Your task to perform on an android device: Search for vegetarian restaurants on Maps Image 0: 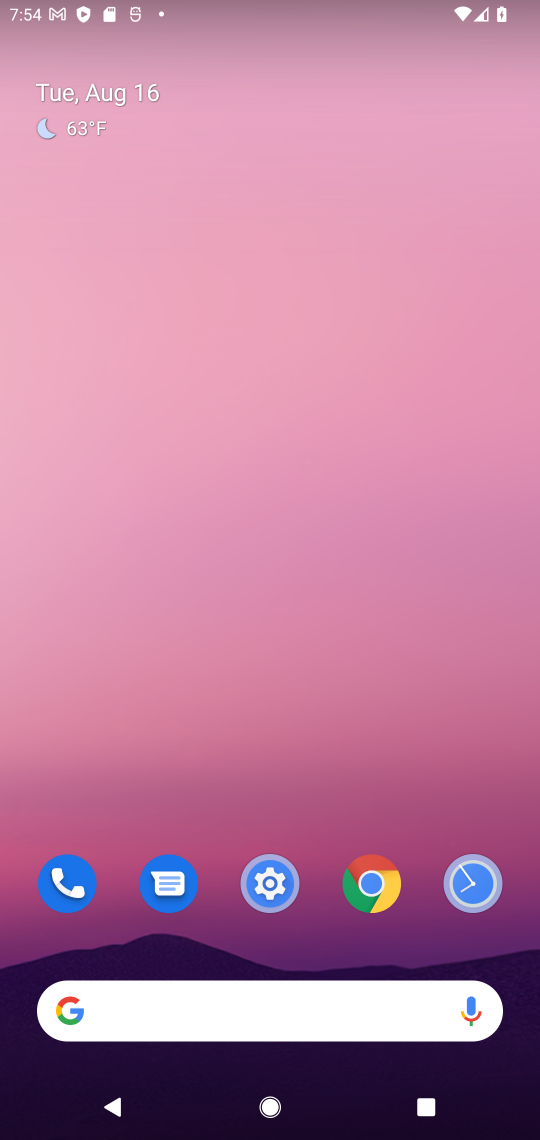
Step 0: drag from (322, 836) to (284, 78)
Your task to perform on an android device: Search for vegetarian restaurants on Maps Image 1: 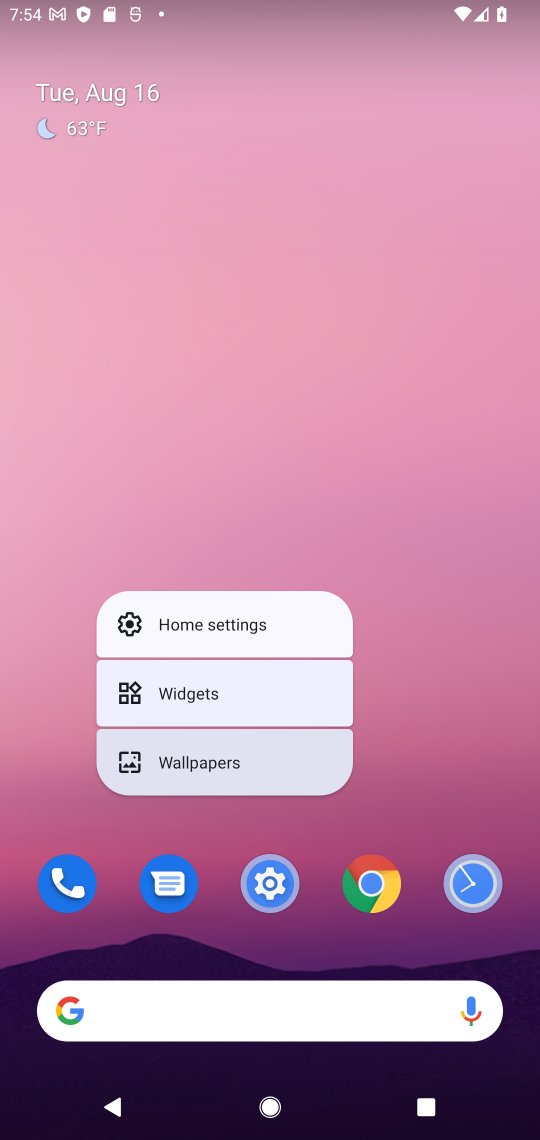
Step 1: click (376, 550)
Your task to perform on an android device: Search for vegetarian restaurants on Maps Image 2: 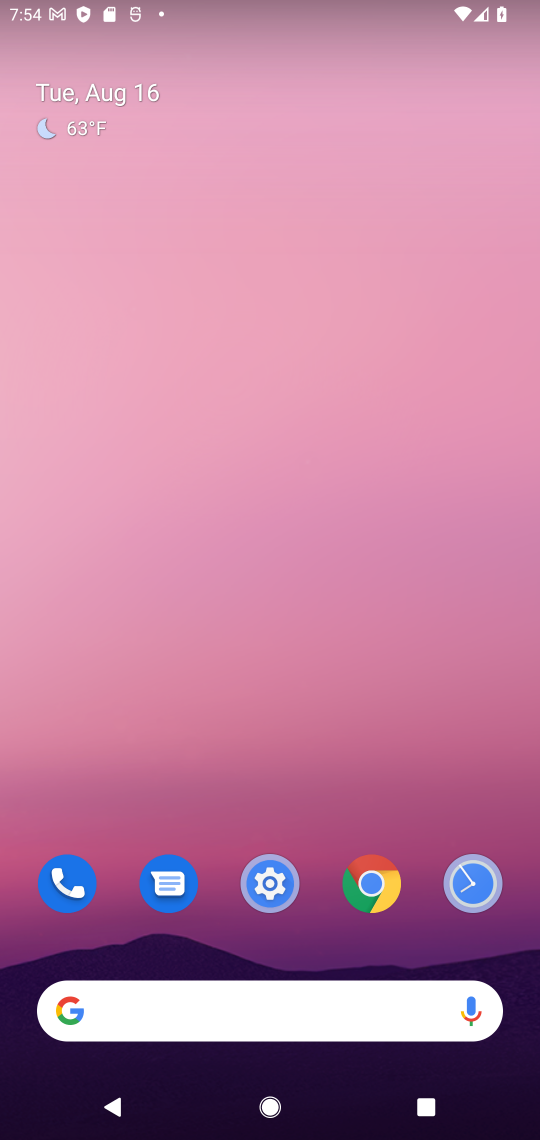
Step 2: drag from (494, 764) to (477, 465)
Your task to perform on an android device: Search for vegetarian restaurants on Maps Image 3: 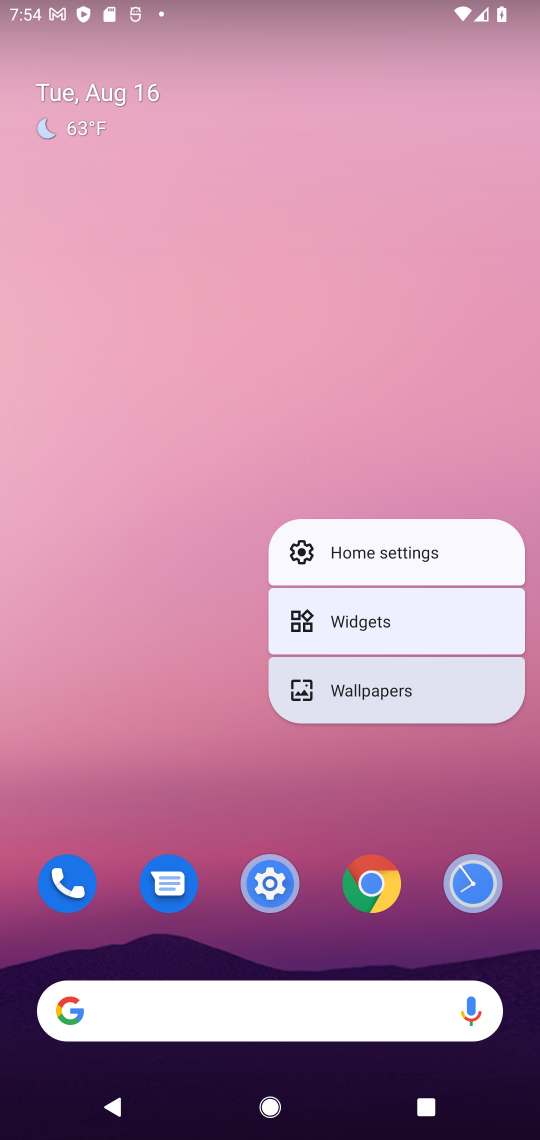
Step 3: click (74, 694)
Your task to perform on an android device: Search for vegetarian restaurants on Maps Image 4: 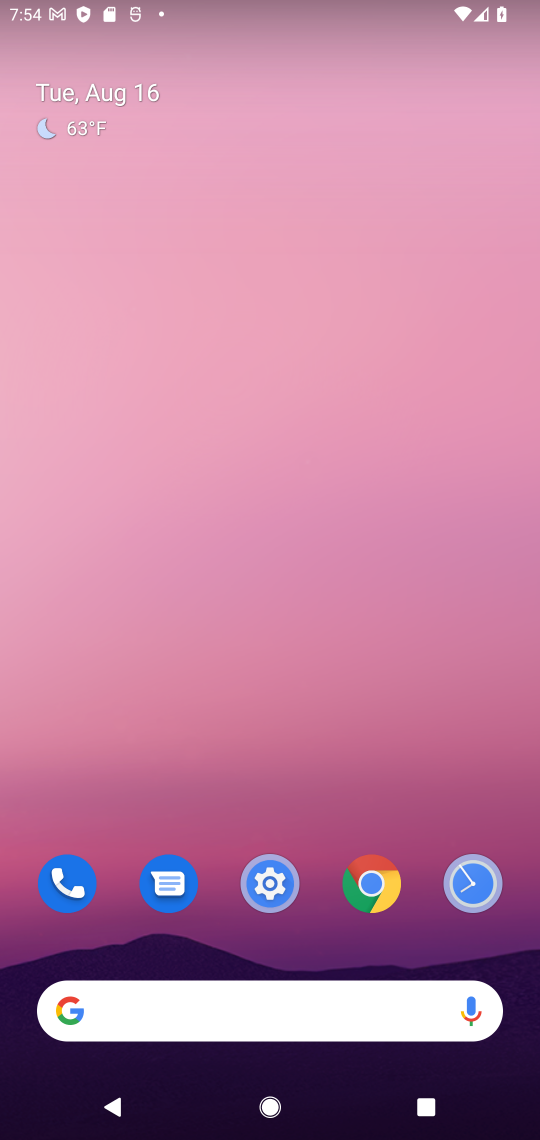
Step 4: drag from (220, 821) to (168, 320)
Your task to perform on an android device: Search for vegetarian restaurants on Maps Image 5: 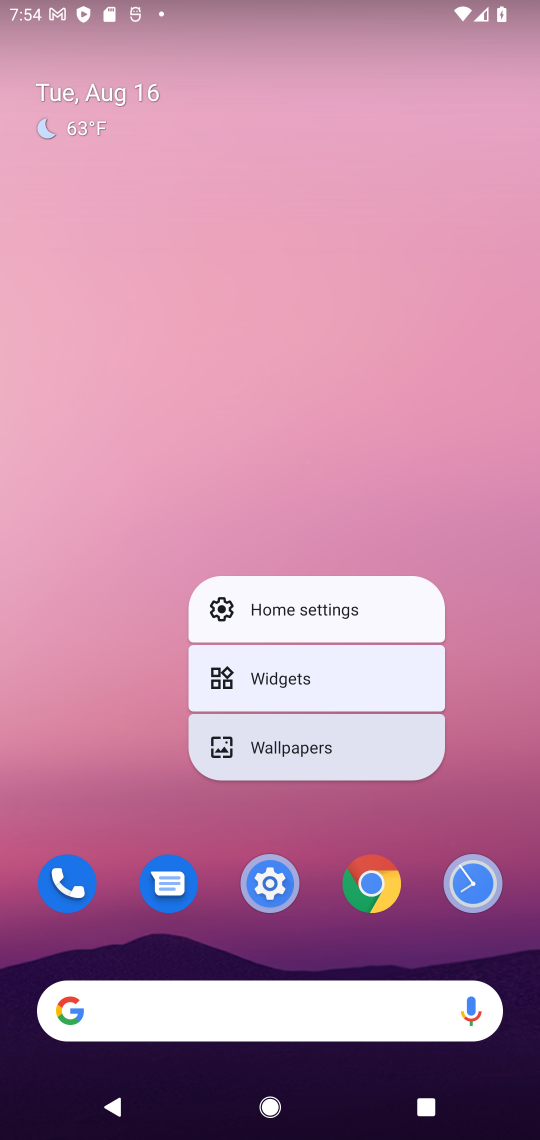
Step 5: click (168, 320)
Your task to perform on an android device: Search for vegetarian restaurants on Maps Image 6: 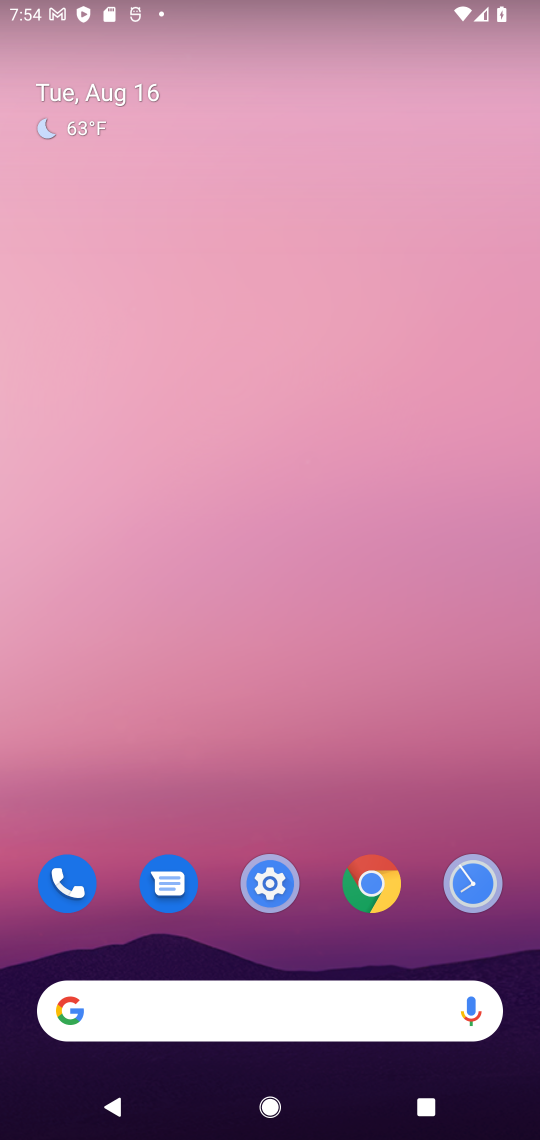
Step 6: drag from (137, 965) to (197, 141)
Your task to perform on an android device: Search for vegetarian restaurants on Maps Image 7: 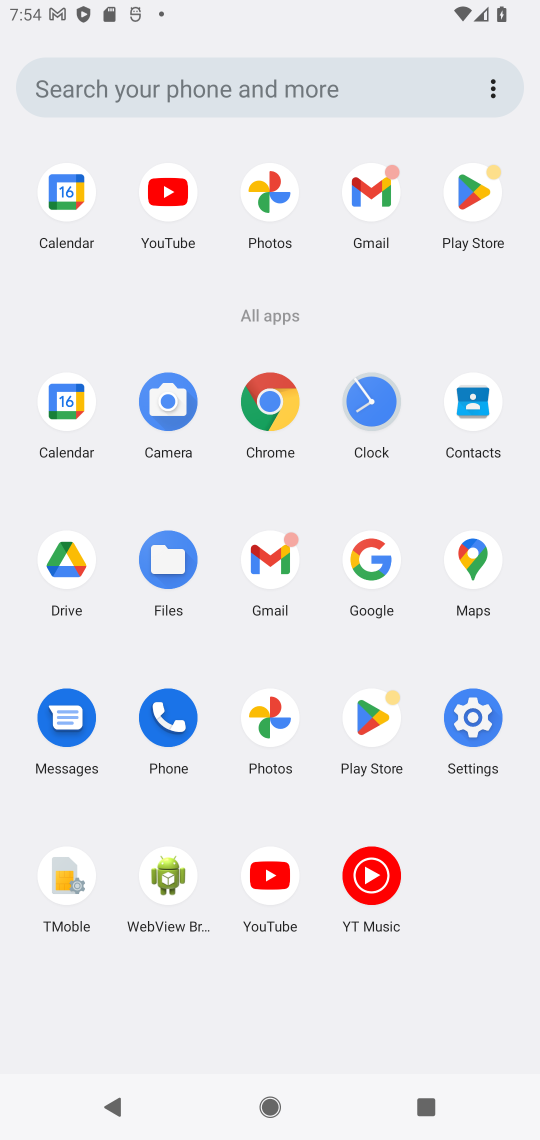
Step 7: click (485, 571)
Your task to perform on an android device: Search for vegetarian restaurants on Maps Image 8: 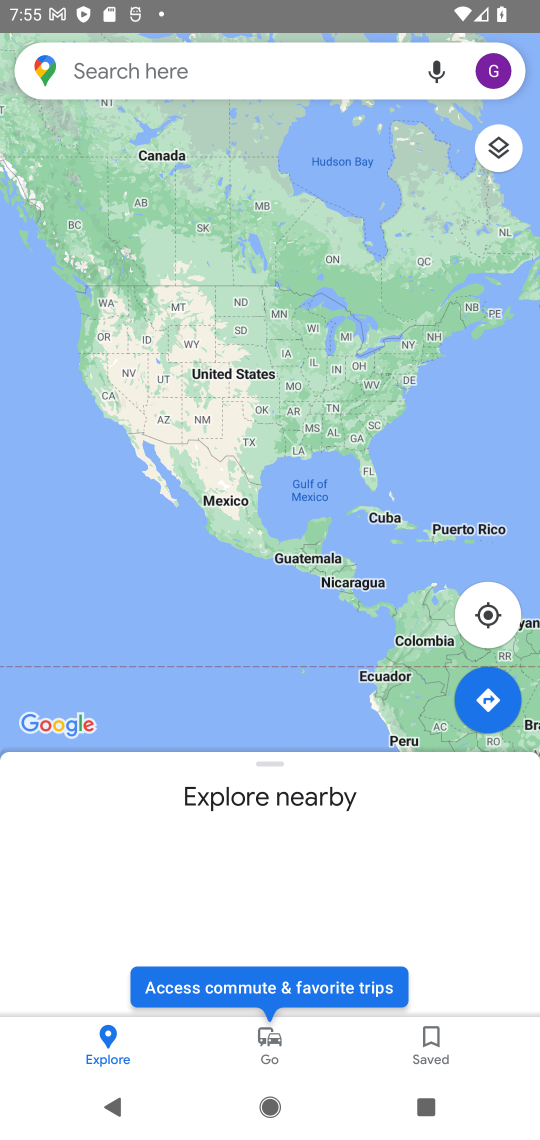
Step 8: click (323, 82)
Your task to perform on an android device: Search for vegetarian restaurants on Maps Image 9: 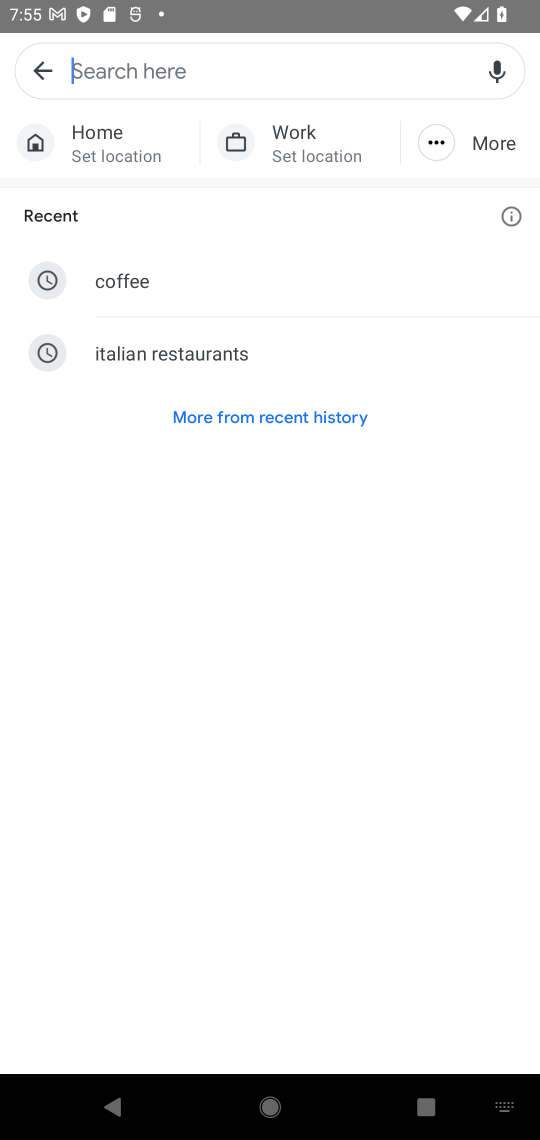
Step 9: type "vegetarian restaurant"
Your task to perform on an android device: Search for vegetarian restaurants on Maps Image 10: 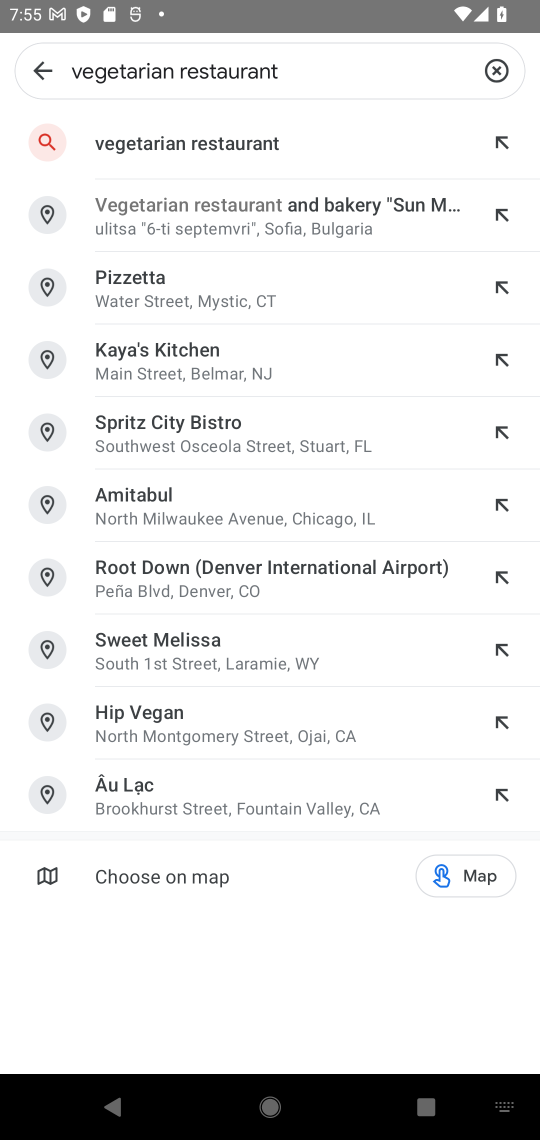
Step 10: click (343, 144)
Your task to perform on an android device: Search for vegetarian restaurants on Maps Image 11: 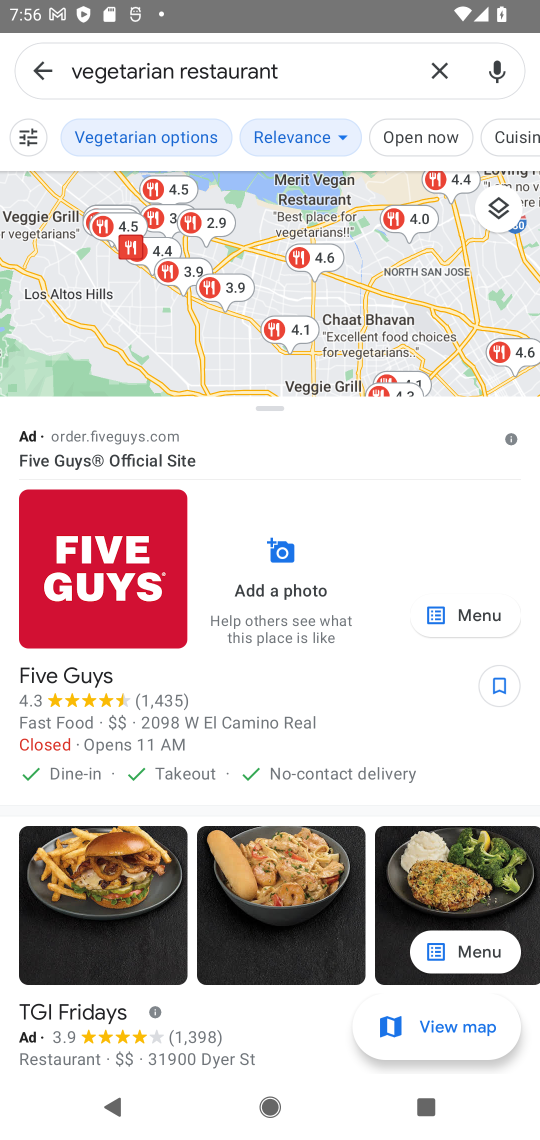
Step 11: task complete